Your task to perform on an android device: Search for sushi restaurants on Maps Image 0: 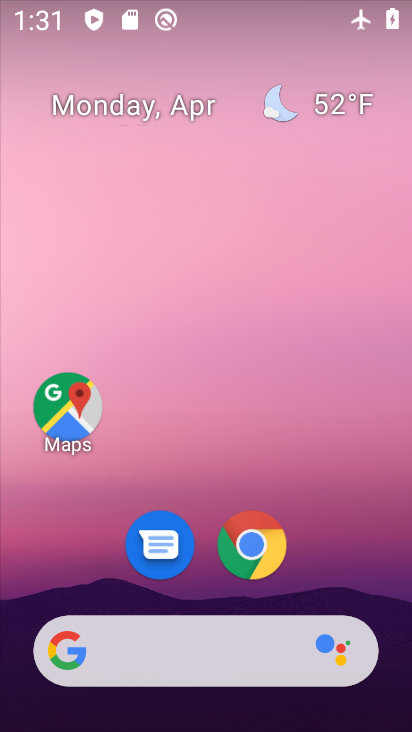
Step 0: drag from (228, 636) to (230, 193)
Your task to perform on an android device: Search for sushi restaurants on Maps Image 1: 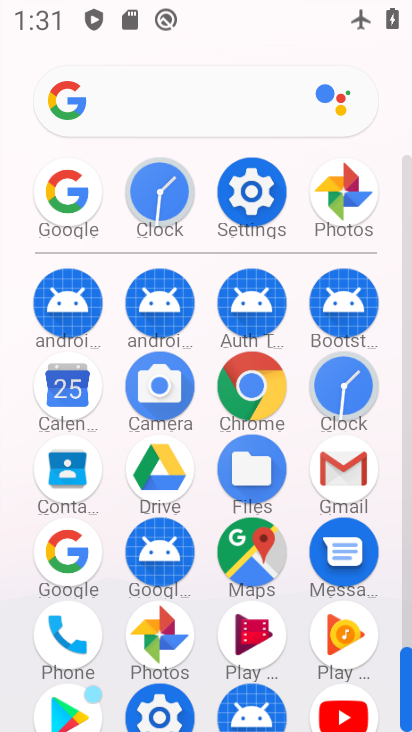
Step 1: click (258, 553)
Your task to perform on an android device: Search for sushi restaurants on Maps Image 2: 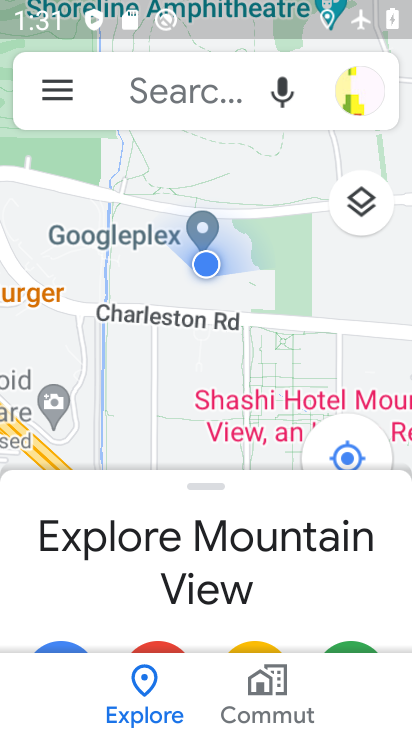
Step 2: click (189, 86)
Your task to perform on an android device: Search for sushi restaurants on Maps Image 3: 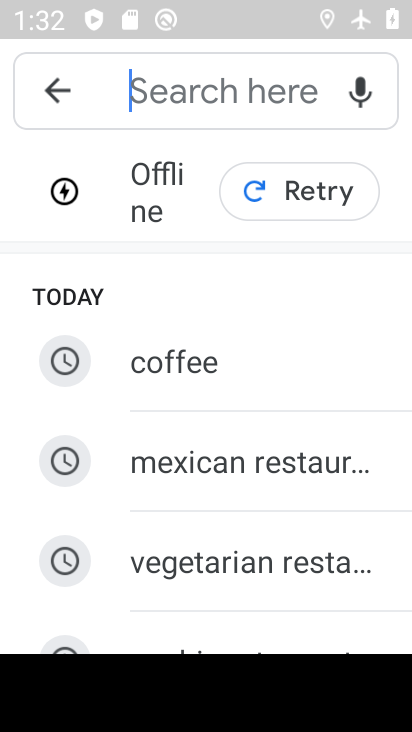
Step 3: type "sushi restaurants"
Your task to perform on an android device: Search for sushi restaurants on Maps Image 4: 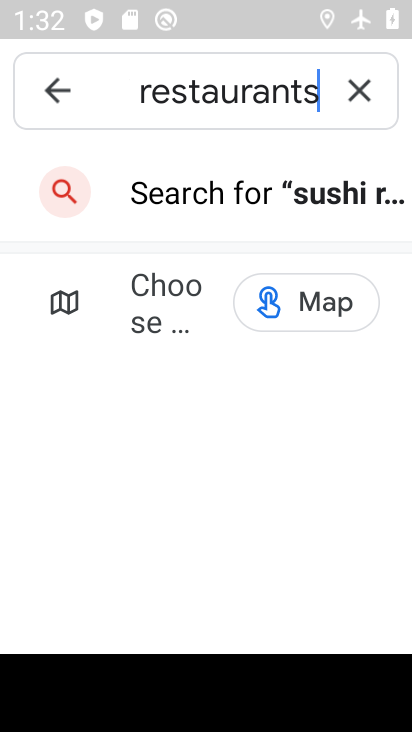
Step 4: click (266, 196)
Your task to perform on an android device: Search for sushi restaurants on Maps Image 5: 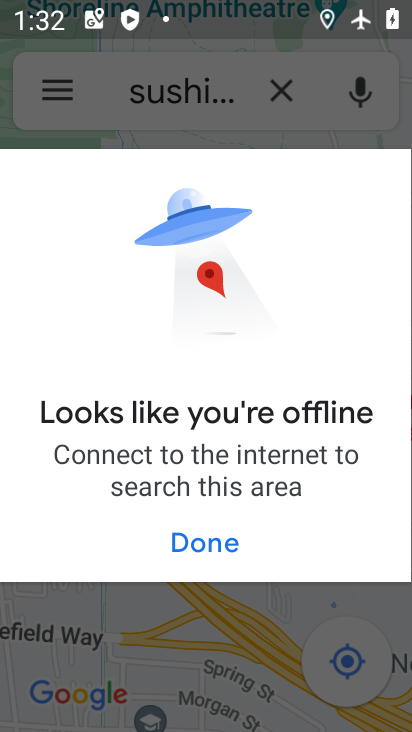
Step 5: task complete